Your task to perform on an android device: Search for Italian restaurants on Maps Image 0: 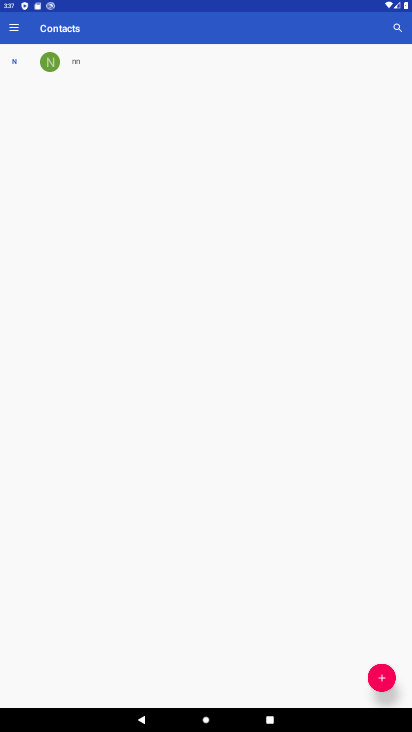
Step 0: press home button
Your task to perform on an android device: Search for Italian restaurants on Maps Image 1: 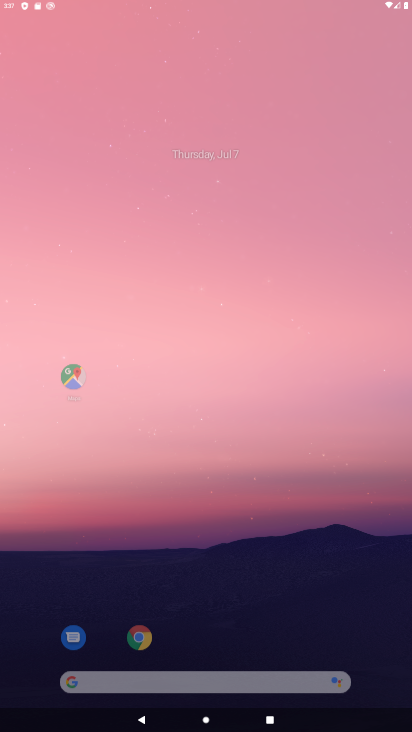
Step 1: drag from (394, 658) to (244, 6)
Your task to perform on an android device: Search for Italian restaurants on Maps Image 2: 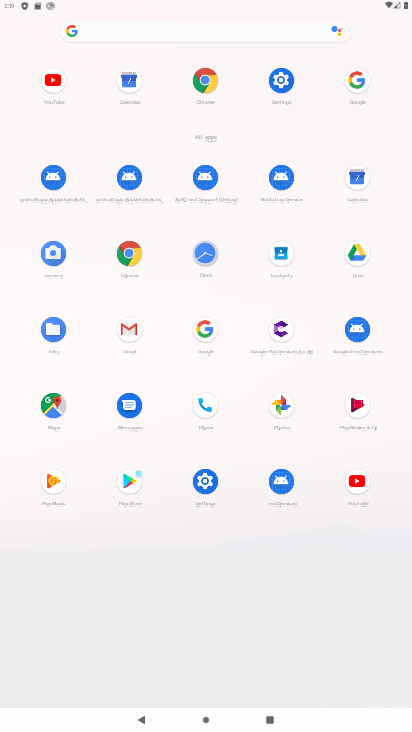
Step 2: click (51, 421)
Your task to perform on an android device: Search for Italian restaurants on Maps Image 3: 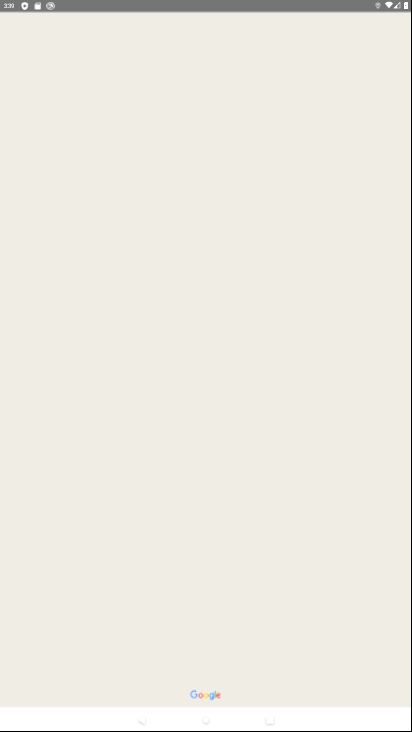
Step 3: click (51, 421)
Your task to perform on an android device: Search for Italian restaurants on Maps Image 4: 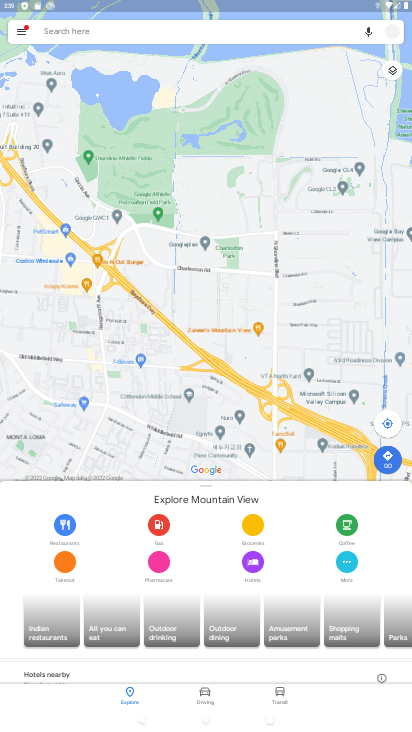
Step 4: click (234, 29)
Your task to perform on an android device: Search for Italian restaurants on Maps Image 5: 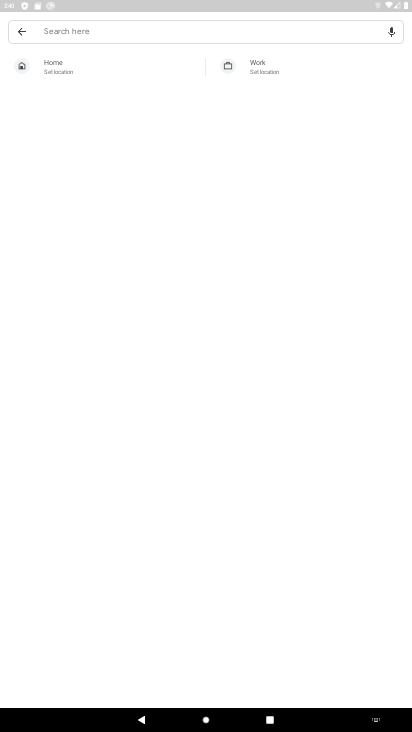
Step 5: type "ltalian restaurants"
Your task to perform on an android device: Search for Italian restaurants on Maps Image 6: 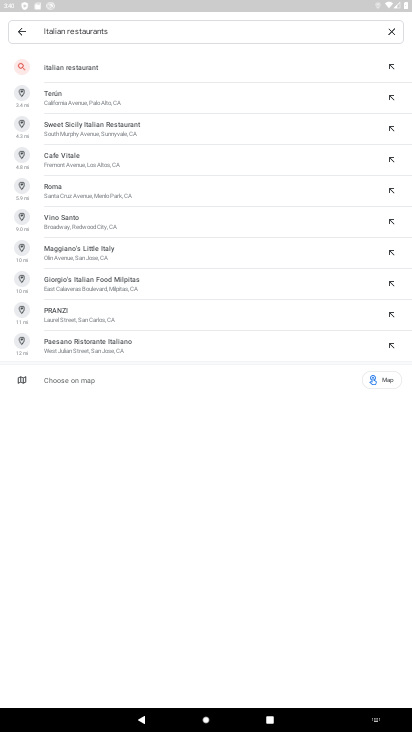
Step 6: click (80, 61)
Your task to perform on an android device: Search for Italian restaurants on Maps Image 7: 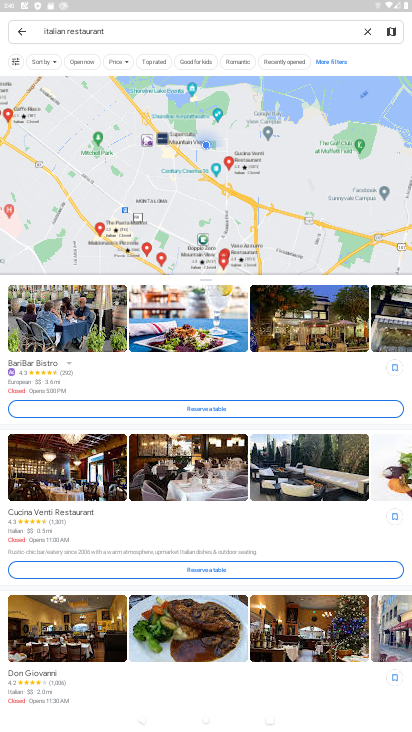
Step 7: task complete